Your task to perform on an android device: check google app version Image 0: 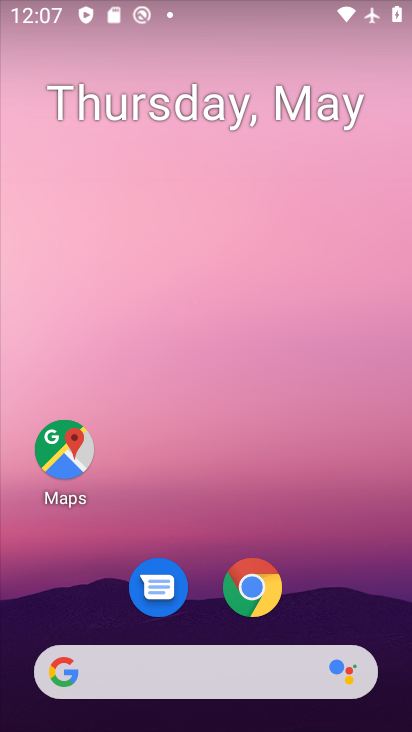
Step 0: drag from (331, 674) to (339, 81)
Your task to perform on an android device: check google app version Image 1: 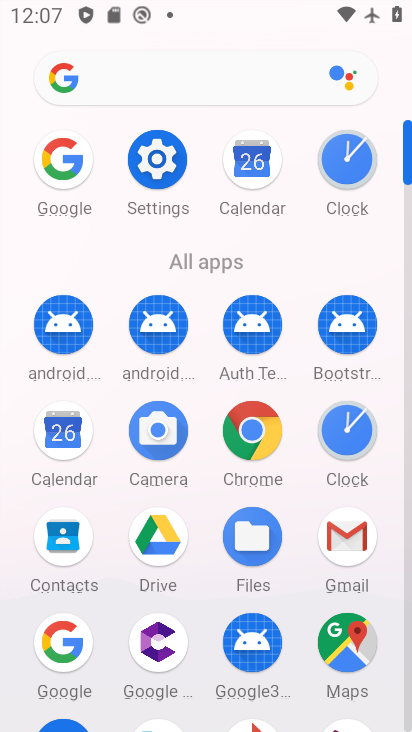
Step 1: click (258, 418)
Your task to perform on an android device: check google app version Image 2: 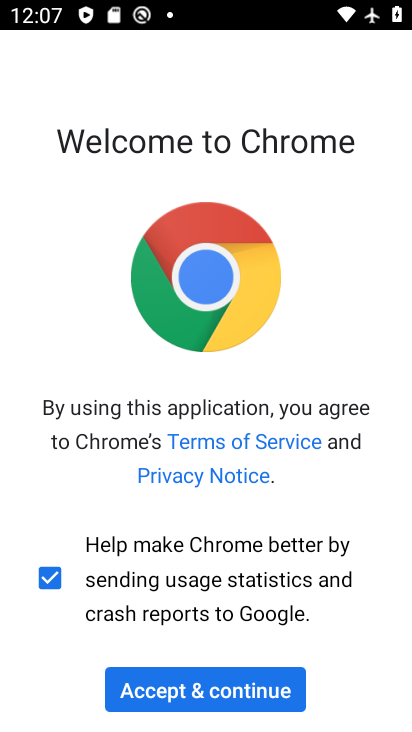
Step 2: click (225, 696)
Your task to perform on an android device: check google app version Image 3: 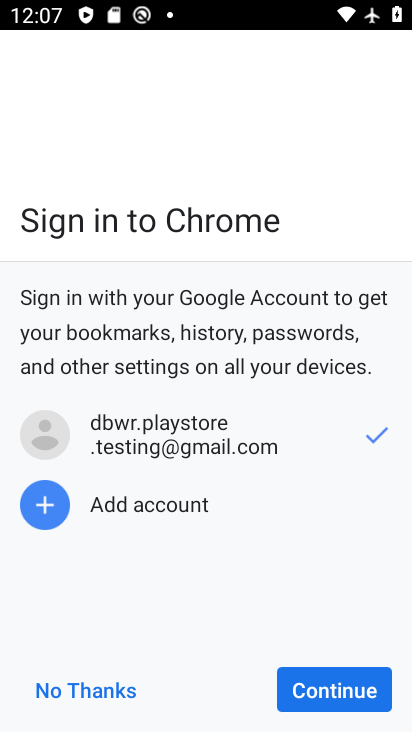
Step 3: click (105, 696)
Your task to perform on an android device: check google app version Image 4: 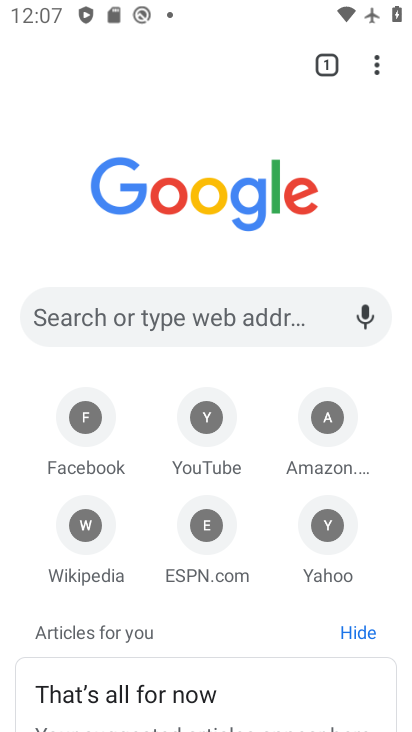
Step 4: drag from (378, 62) to (163, 615)
Your task to perform on an android device: check google app version Image 5: 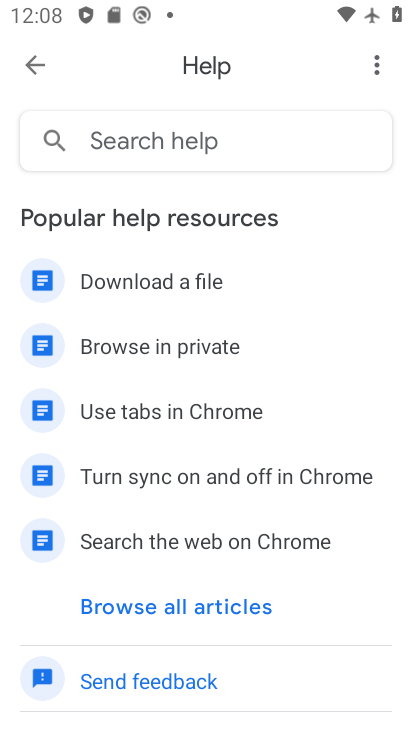
Step 5: click (380, 48)
Your task to perform on an android device: check google app version Image 6: 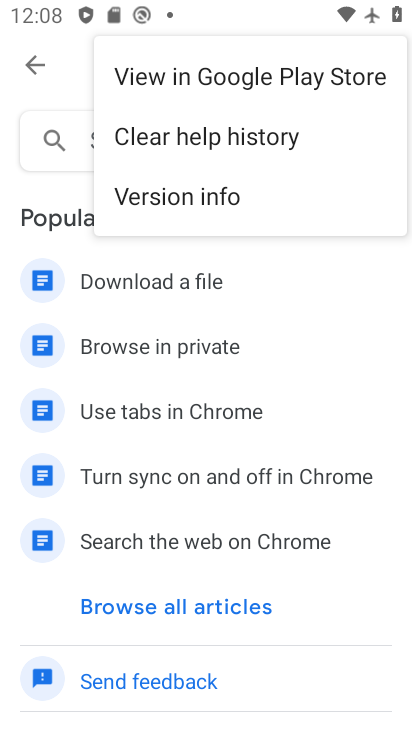
Step 6: click (228, 210)
Your task to perform on an android device: check google app version Image 7: 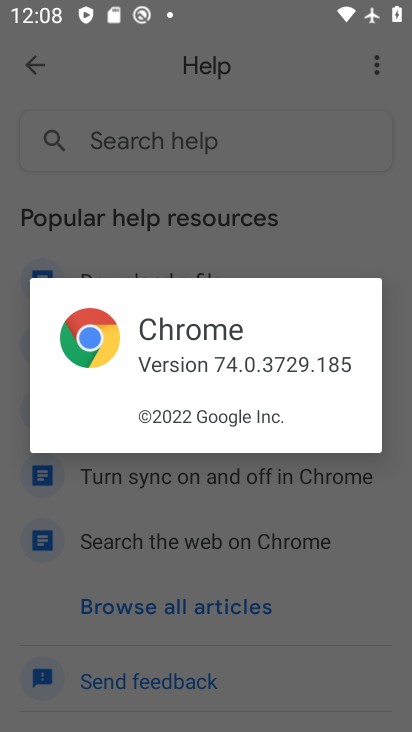
Step 7: task complete